Your task to perform on an android device: turn off sleep mode Image 0: 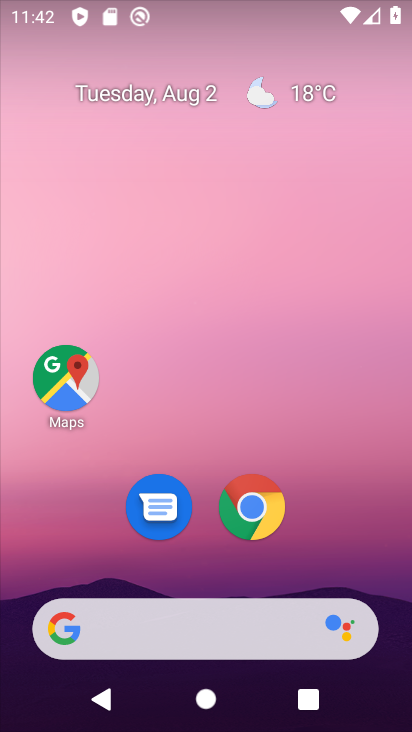
Step 0: drag from (236, 232) to (238, 20)
Your task to perform on an android device: turn off sleep mode Image 1: 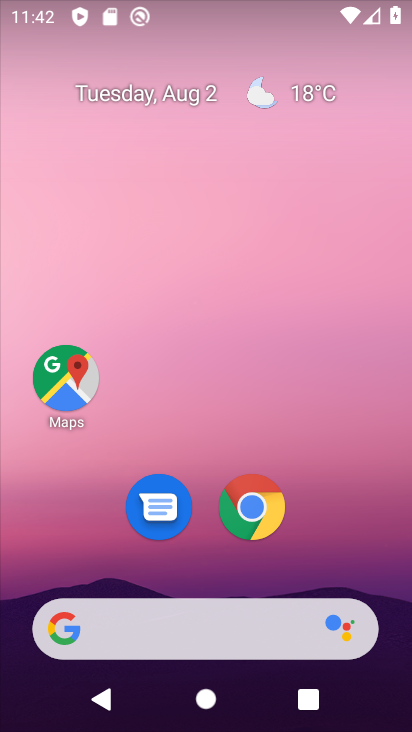
Step 1: drag from (235, 603) to (240, 57)
Your task to perform on an android device: turn off sleep mode Image 2: 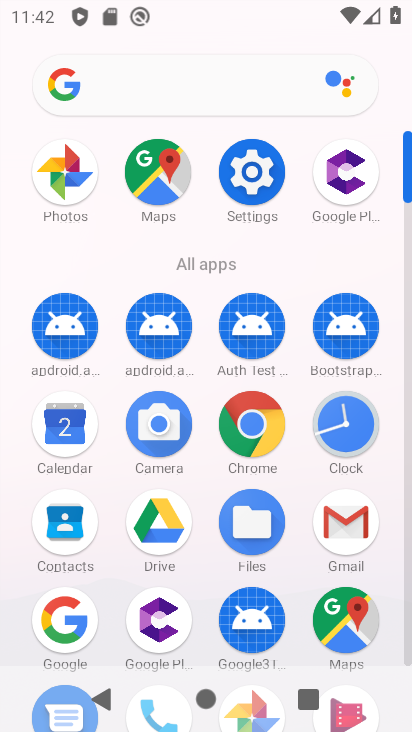
Step 2: click (252, 165)
Your task to perform on an android device: turn off sleep mode Image 3: 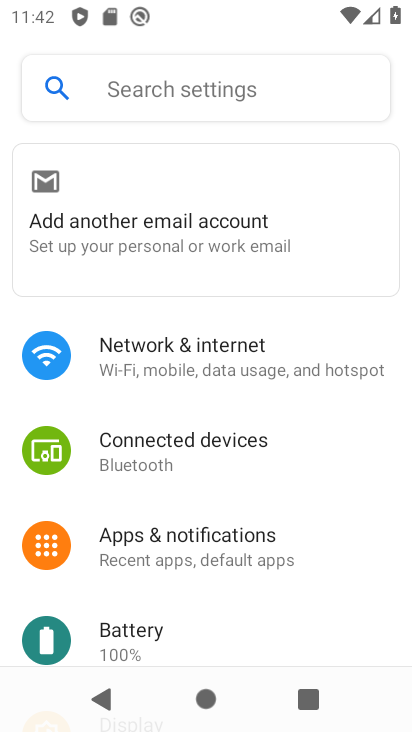
Step 3: drag from (270, 587) to (287, 324)
Your task to perform on an android device: turn off sleep mode Image 4: 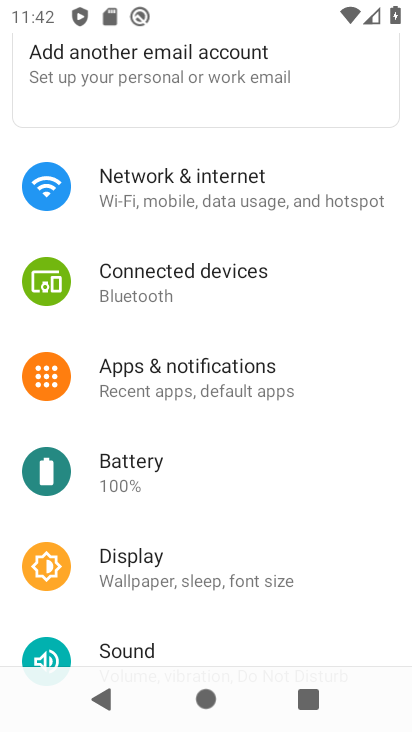
Step 4: click (217, 573)
Your task to perform on an android device: turn off sleep mode Image 5: 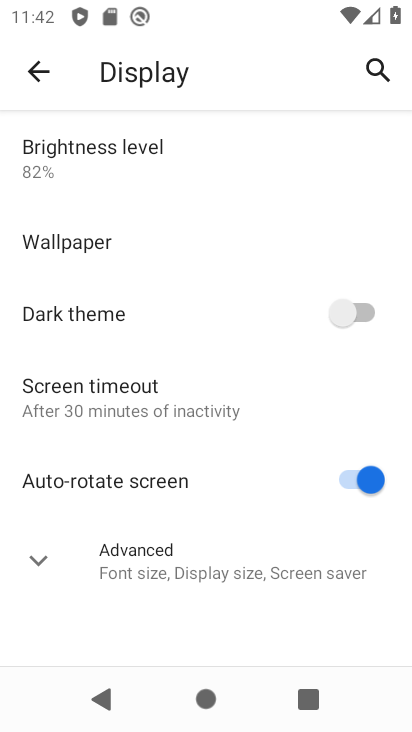
Step 5: click (164, 556)
Your task to perform on an android device: turn off sleep mode Image 6: 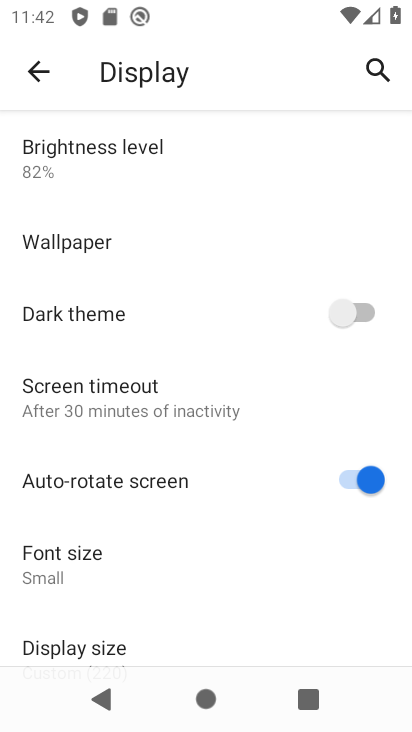
Step 6: task complete